Your task to perform on an android device: turn off translation in the chrome app Image 0: 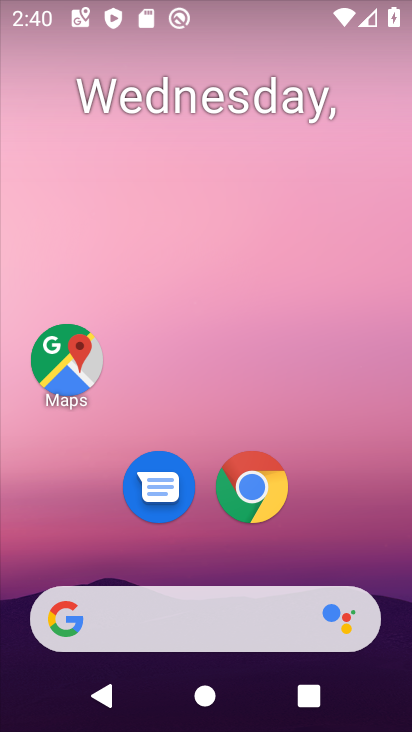
Step 0: click (252, 496)
Your task to perform on an android device: turn off translation in the chrome app Image 1: 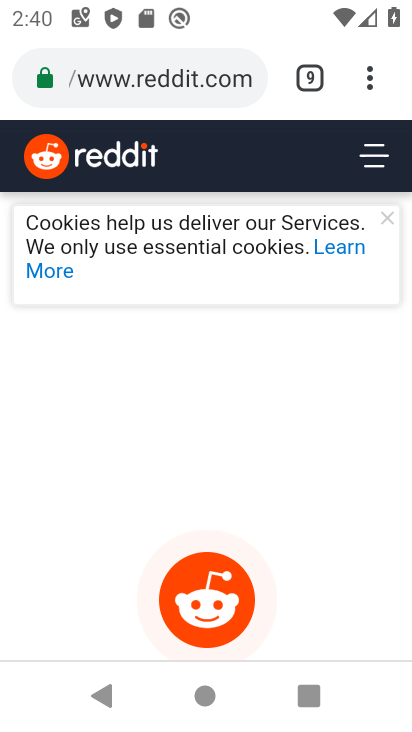
Step 1: click (371, 75)
Your task to perform on an android device: turn off translation in the chrome app Image 2: 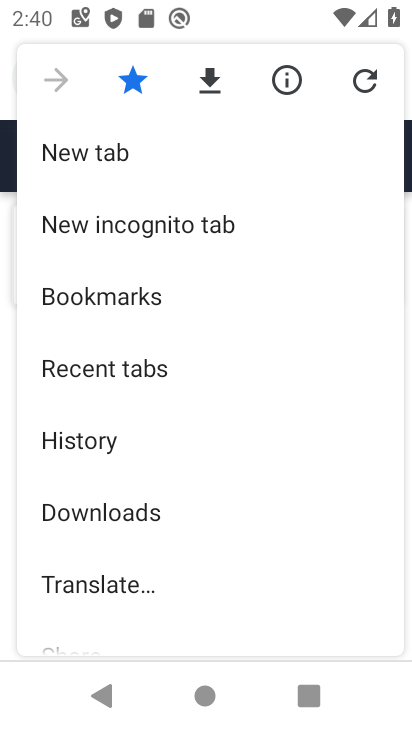
Step 2: drag from (234, 442) to (212, 146)
Your task to perform on an android device: turn off translation in the chrome app Image 3: 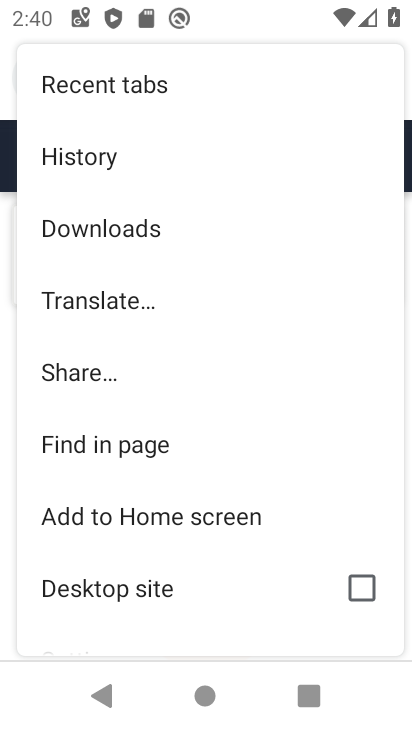
Step 3: drag from (198, 441) to (132, 94)
Your task to perform on an android device: turn off translation in the chrome app Image 4: 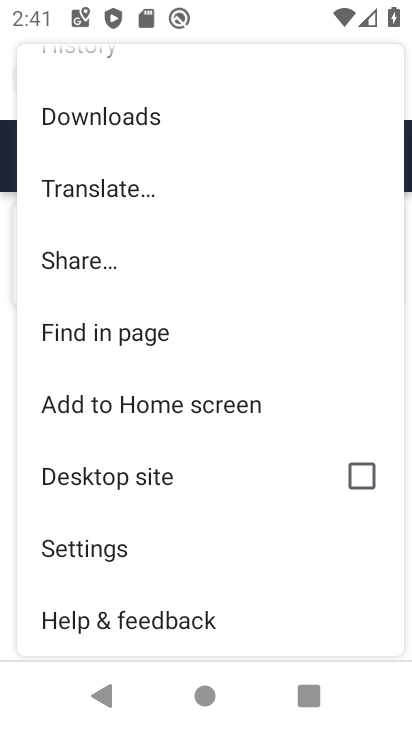
Step 4: drag from (177, 533) to (137, 189)
Your task to perform on an android device: turn off translation in the chrome app Image 5: 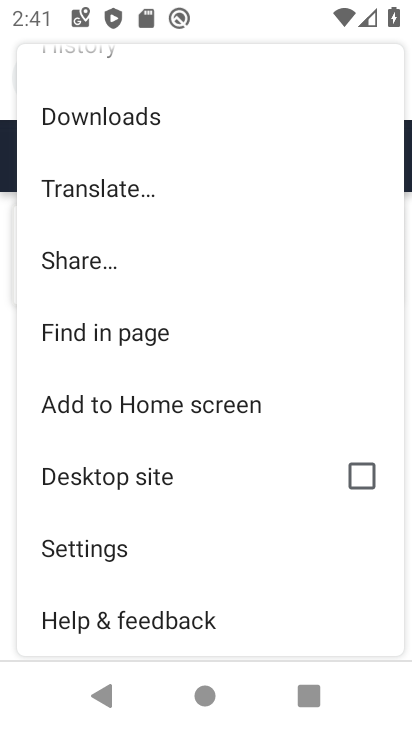
Step 5: click (105, 543)
Your task to perform on an android device: turn off translation in the chrome app Image 6: 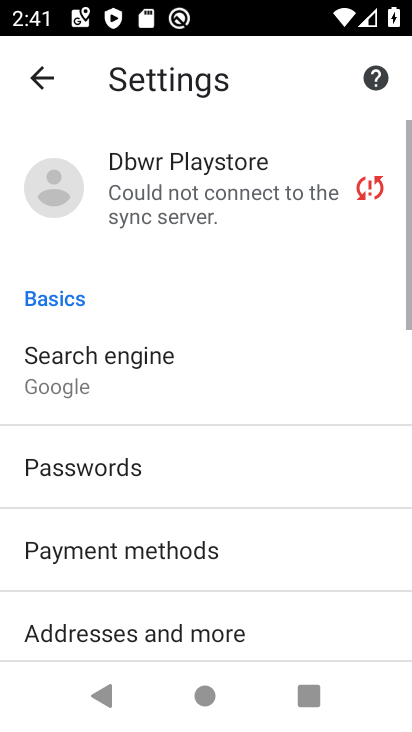
Step 6: drag from (321, 407) to (258, 57)
Your task to perform on an android device: turn off translation in the chrome app Image 7: 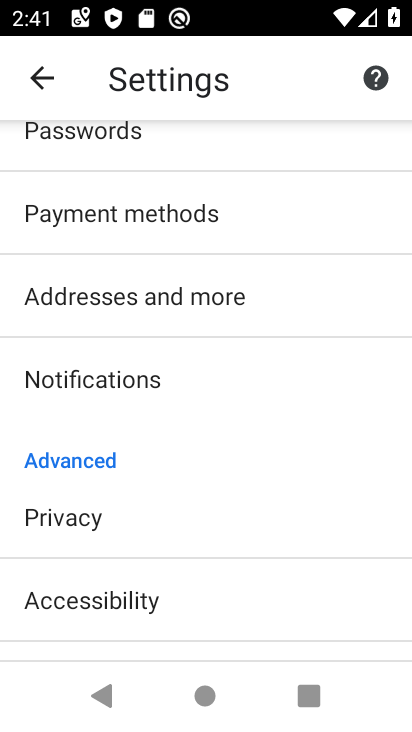
Step 7: drag from (266, 524) to (223, 318)
Your task to perform on an android device: turn off translation in the chrome app Image 8: 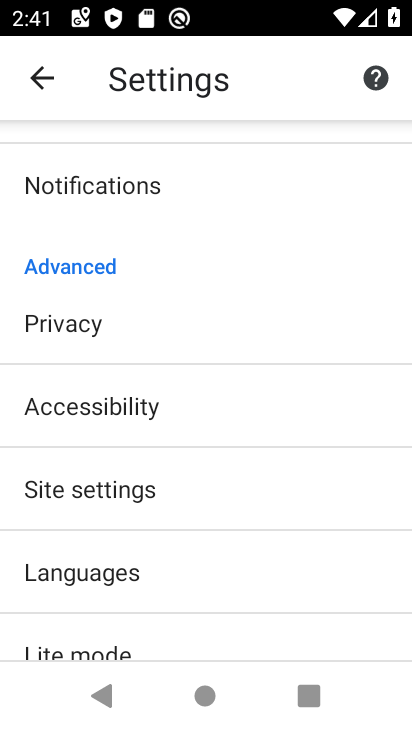
Step 8: click (62, 571)
Your task to perform on an android device: turn off translation in the chrome app Image 9: 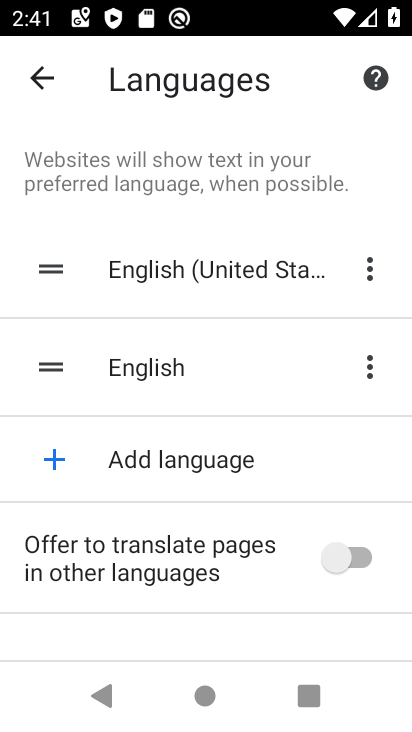
Step 9: task complete